Your task to perform on an android device: toggle translation in the chrome app Image 0: 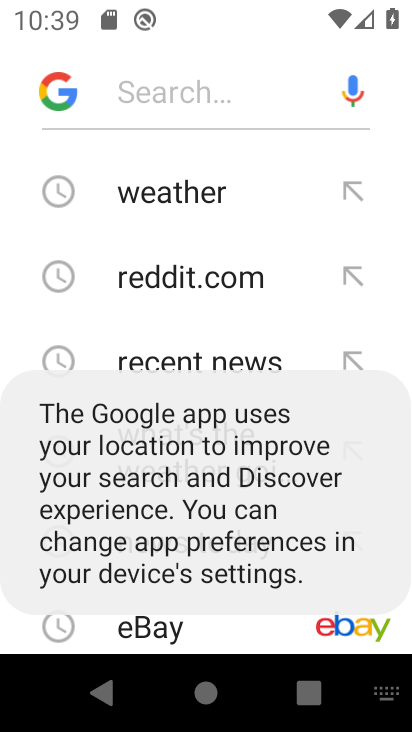
Step 0: press back button
Your task to perform on an android device: toggle translation in the chrome app Image 1: 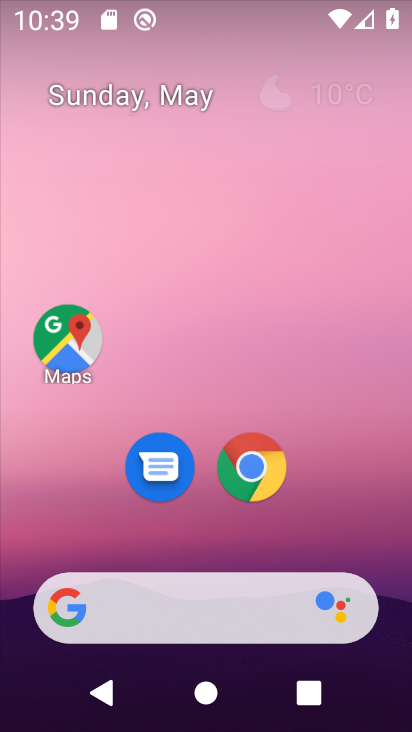
Step 1: click (245, 464)
Your task to perform on an android device: toggle translation in the chrome app Image 2: 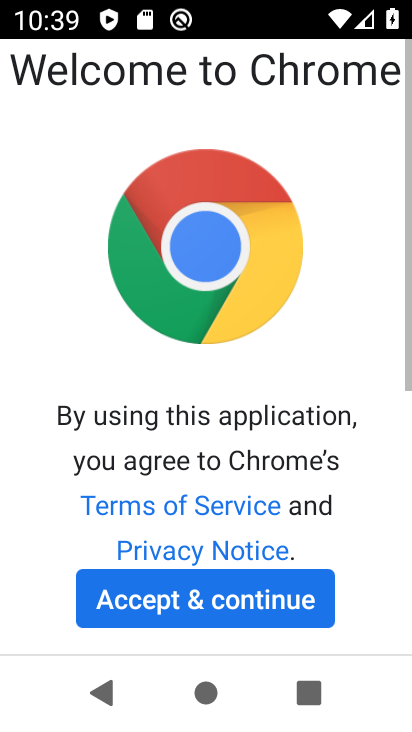
Step 2: click (218, 588)
Your task to perform on an android device: toggle translation in the chrome app Image 3: 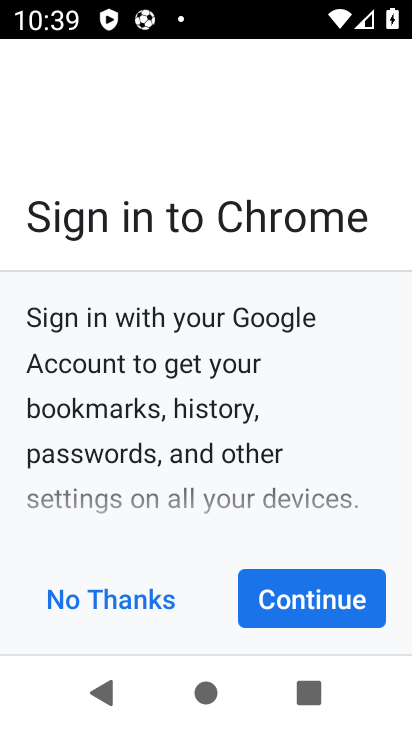
Step 3: click (359, 614)
Your task to perform on an android device: toggle translation in the chrome app Image 4: 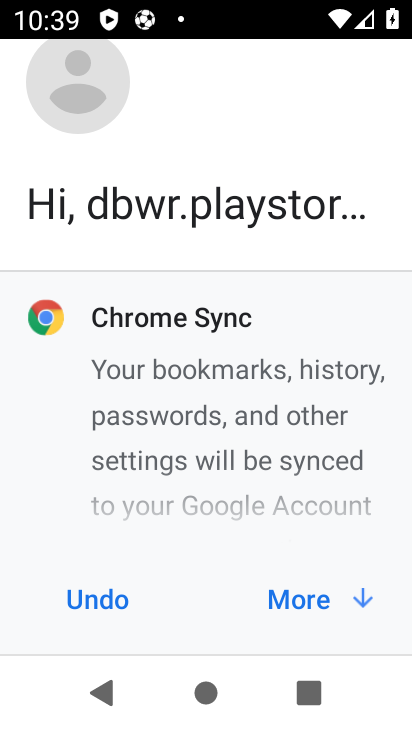
Step 4: click (359, 614)
Your task to perform on an android device: toggle translation in the chrome app Image 5: 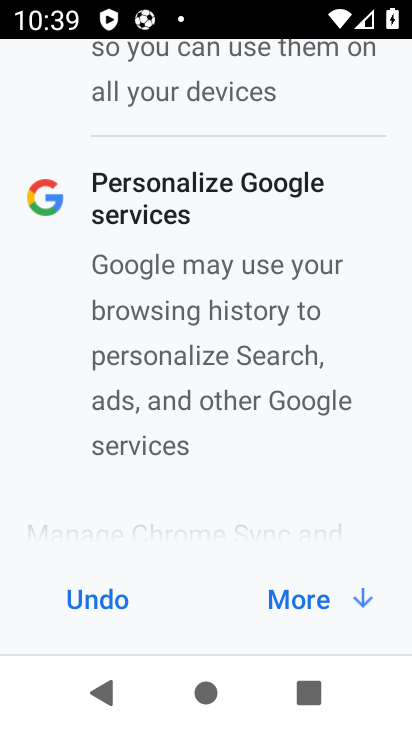
Step 5: click (359, 614)
Your task to perform on an android device: toggle translation in the chrome app Image 6: 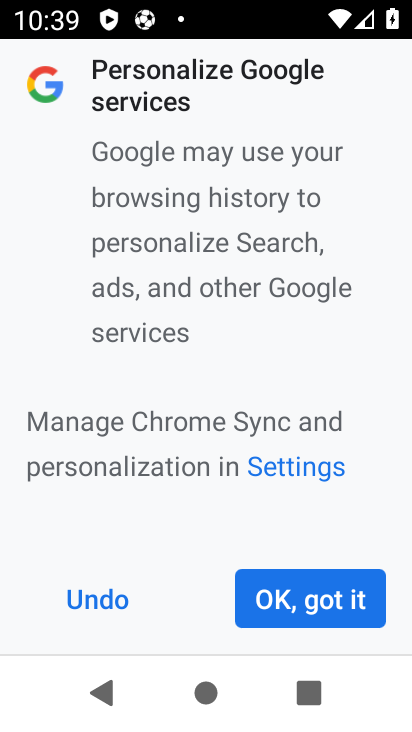
Step 6: click (364, 591)
Your task to perform on an android device: toggle translation in the chrome app Image 7: 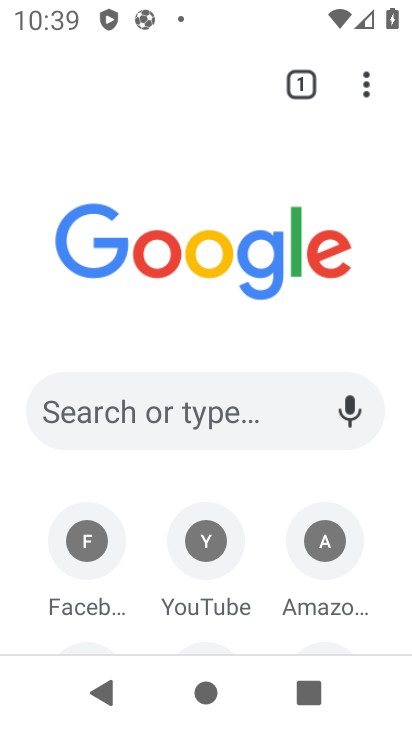
Step 7: drag from (373, 89) to (258, 520)
Your task to perform on an android device: toggle translation in the chrome app Image 8: 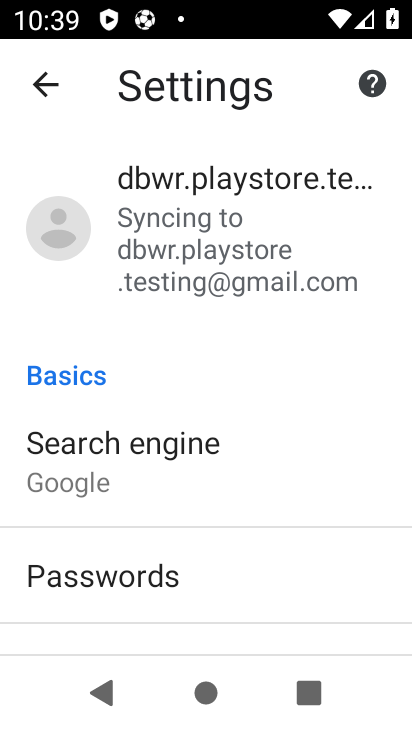
Step 8: drag from (239, 611) to (301, 420)
Your task to perform on an android device: toggle translation in the chrome app Image 9: 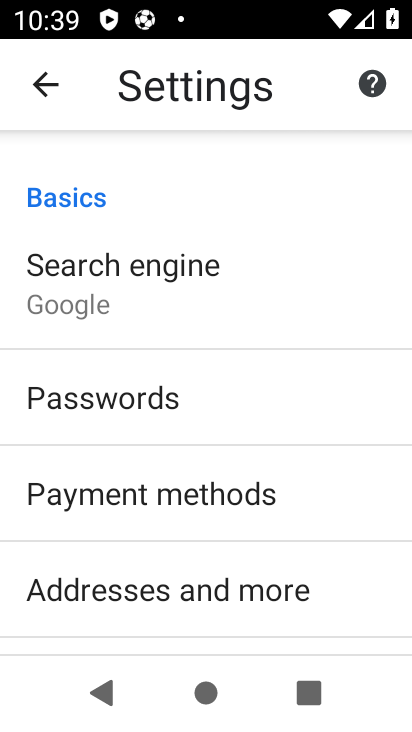
Step 9: drag from (254, 564) to (300, 369)
Your task to perform on an android device: toggle translation in the chrome app Image 10: 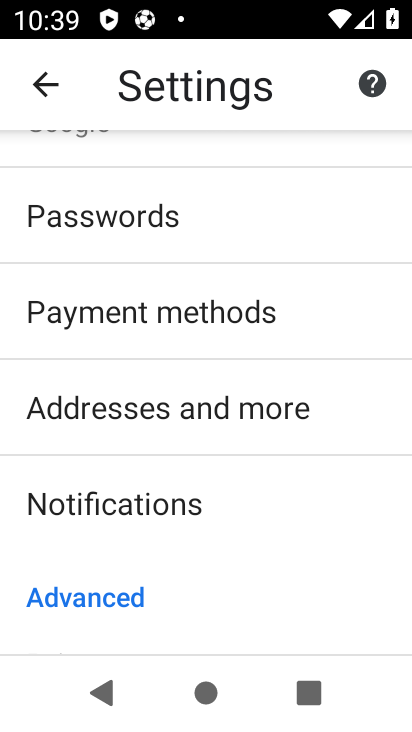
Step 10: drag from (246, 603) to (295, 412)
Your task to perform on an android device: toggle translation in the chrome app Image 11: 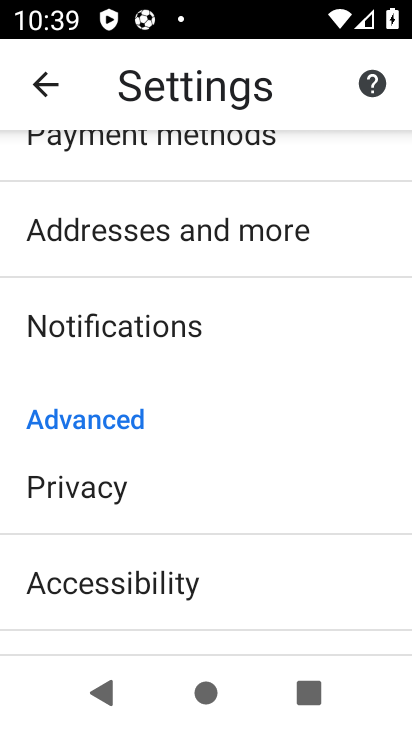
Step 11: drag from (236, 615) to (271, 403)
Your task to perform on an android device: toggle translation in the chrome app Image 12: 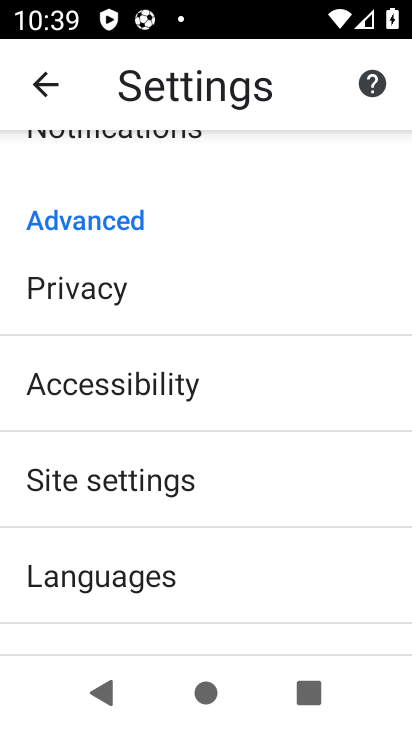
Step 12: click (222, 580)
Your task to perform on an android device: toggle translation in the chrome app Image 13: 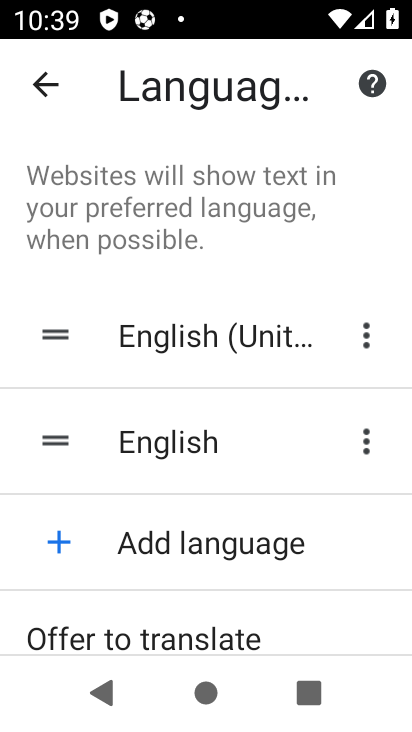
Step 13: drag from (241, 612) to (300, 480)
Your task to perform on an android device: toggle translation in the chrome app Image 14: 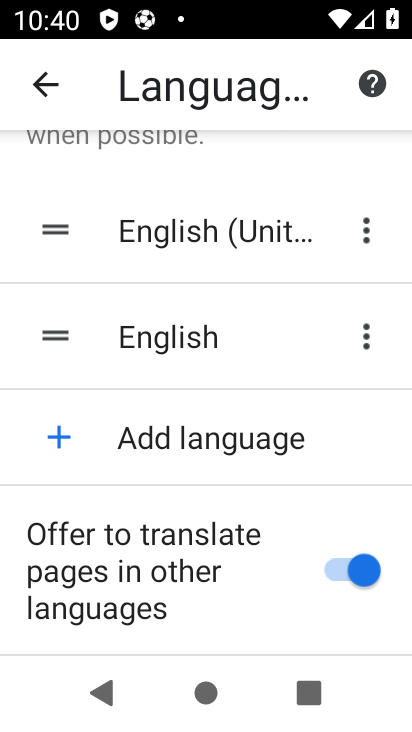
Step 14: click (344, 574)
Your task to perform on an android device: toggle translation in the chrome app Image 15: 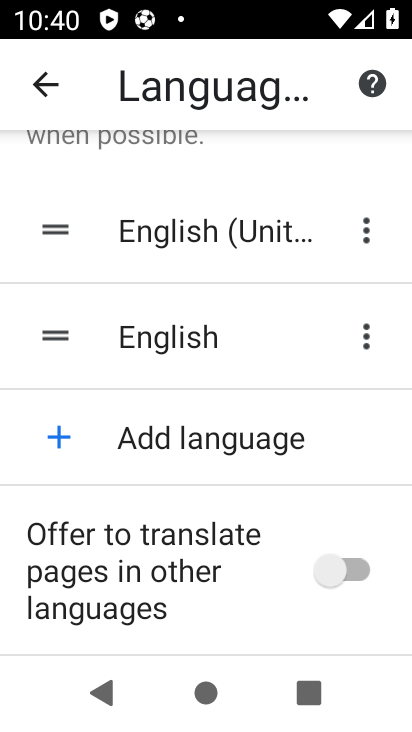
Step 15: task complete